Your task to perform on an android device: Open the Play Movies app and select the watchlist tab. Image 0: 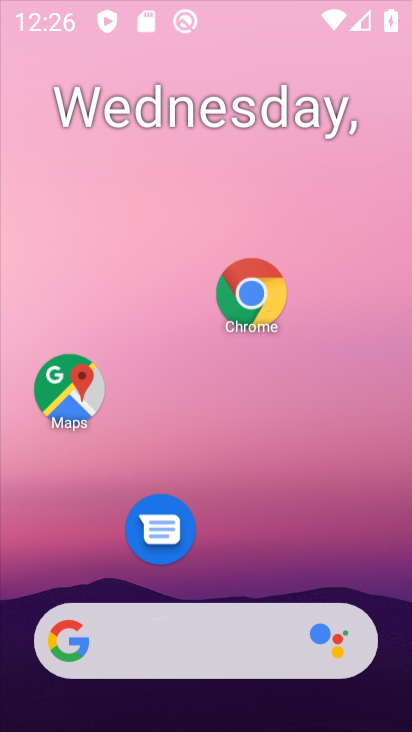
Step 0: drag from (321, 189) to (298, 266)
Your task to perform on an android device: Open the Play Movies app and select the watchlist tab. Image 1: 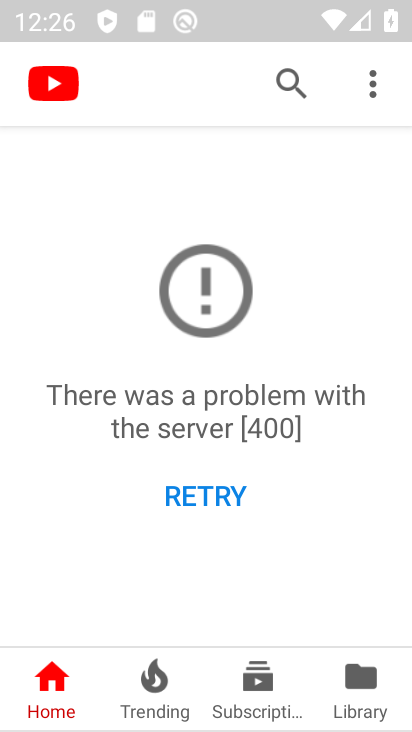
Step 1: press home button
Your task to perform on an android device: Open the Play Movies app and select the watchlist tab. Image 2: 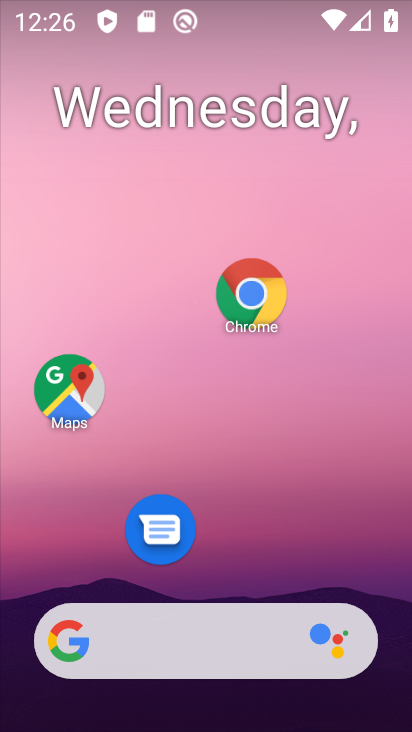
Step 2: drag from (294, 509) to (332, 218)
Your task to perform on an android device: Open the Play Movies app and select the watchlist tab. Image 3: 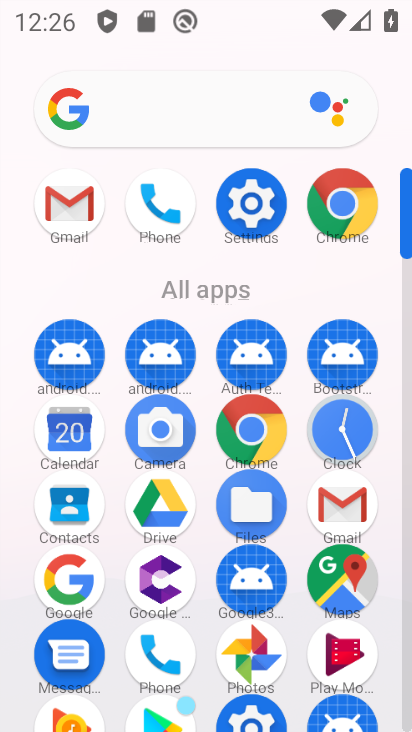
Step 3: click (404, 498)
Your task to perform on an android device: Open the Play Movies app and select the watchlist tab. Image 4: 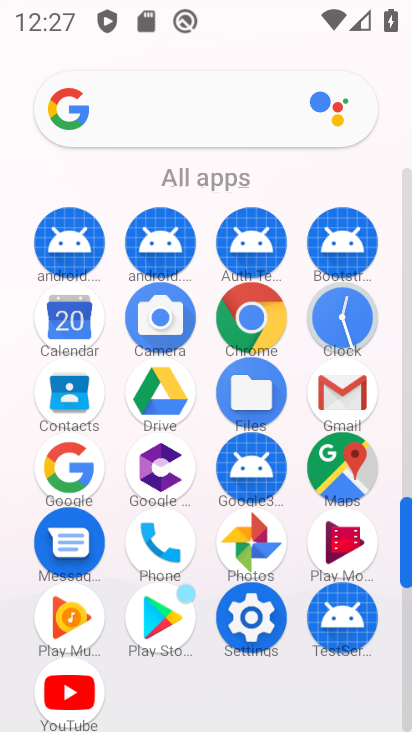
Step 4: click (347, 522)
Your task to perform on an android device: Open the Play Movies app and select the watchlist tab. Image 5: 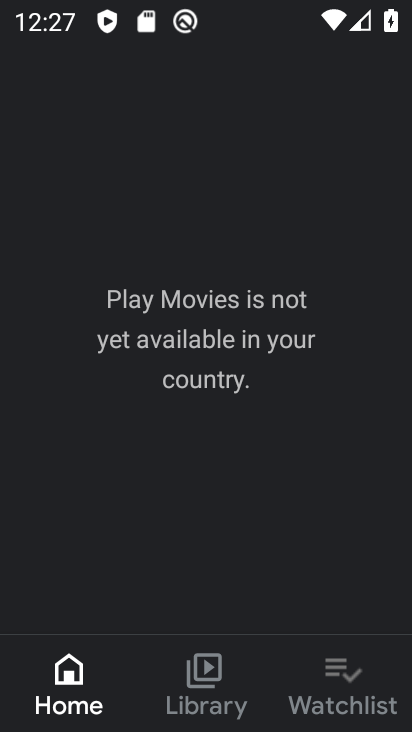
Step 5: click (331, 685)
Your task to perform on an android device: Open the Play Movies app and select the watchlist tab. Image 6: 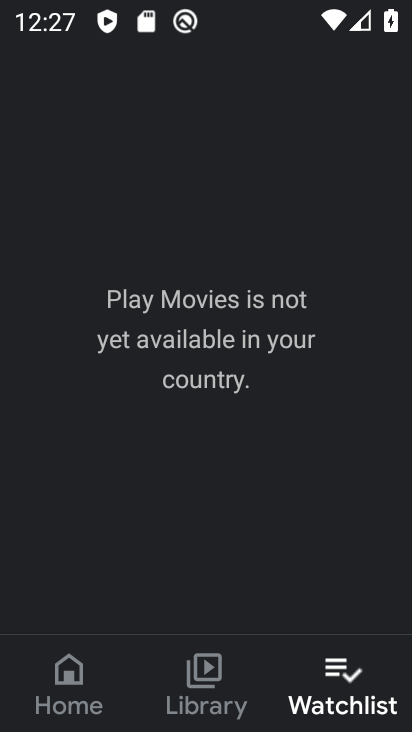
Step 6: task complete